Your task to perform on an android device: toggle data saver in the chrome app Image 0: 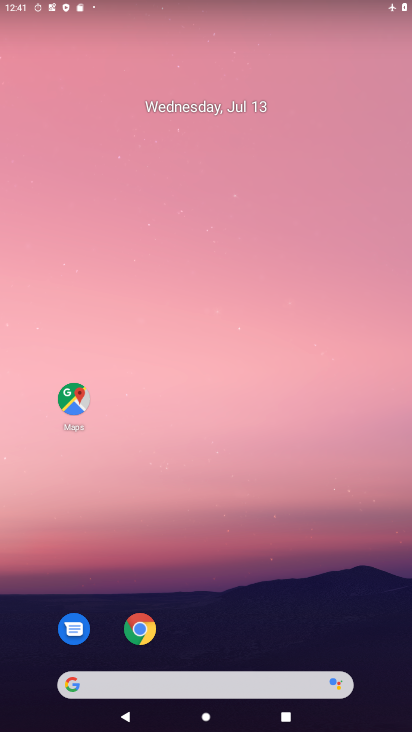
Step 0: click (146, 643)
Your task to perform on an android device: toggle data saver in the chrome app Image 1: 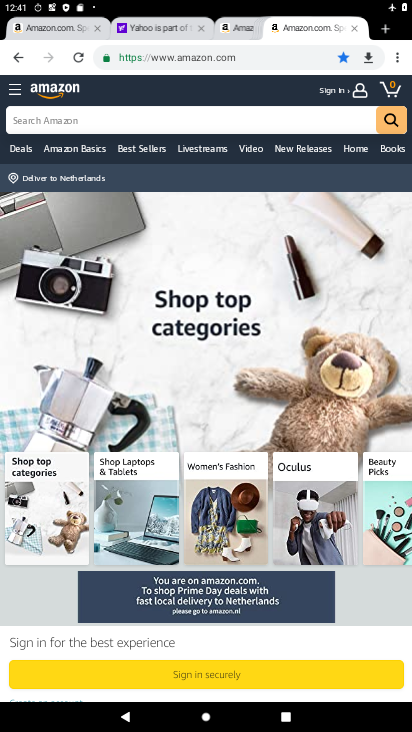
Step 1: click (398, 55)
Your task to perform on an android device: toggle data saver in the chrome app Image 2: 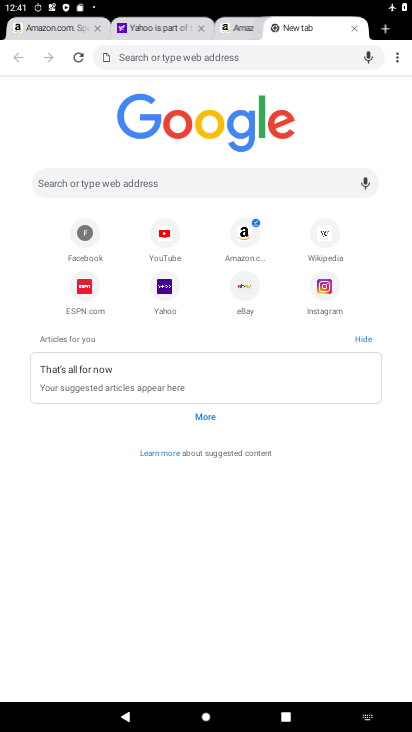
Step 2: click (399, 62)
Your task to perform on an android device: toggle data saver in the chrome app Image 3: 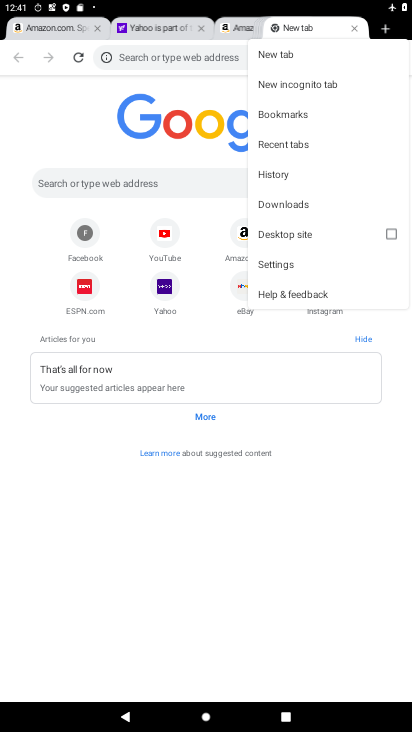
Step 3: click (283, 266)
Your task to perform on an android device: toggle data saver in the chrome app Image 4: 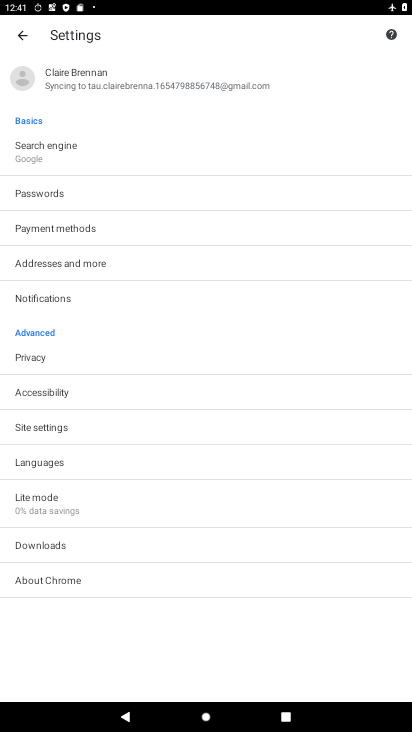
Step 4: click (75, 497)
Your task to perform on an android device: toggle data saver in the chrome app Image 5: 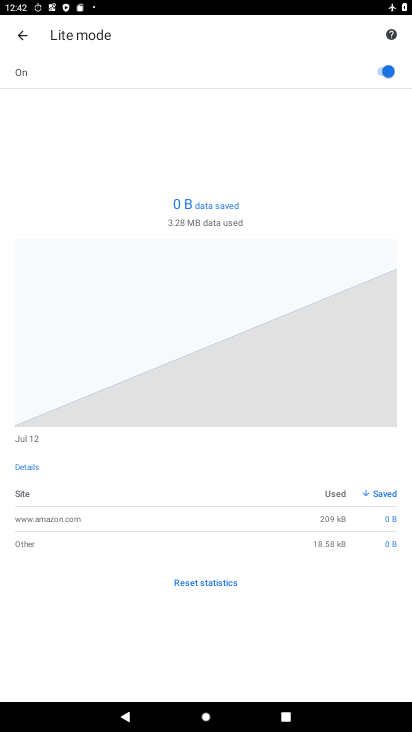
Step 5: task complete